Your task to perform on an android device: toggle wifi Image 0: 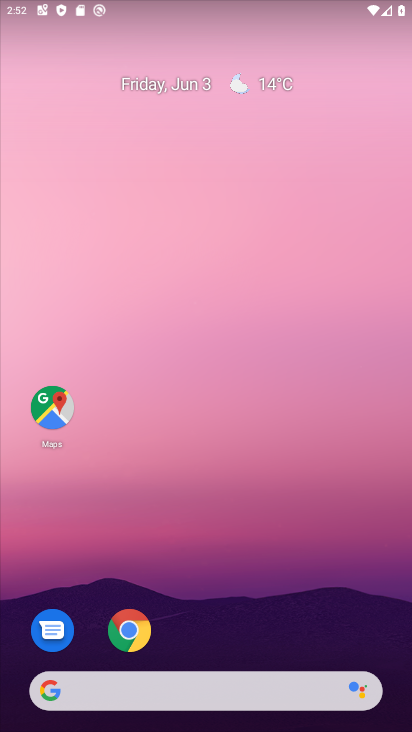
Step 0: drag from (221, 640) to (173, 270)
Your task to perform on an android device: toggle wifi Image 1: 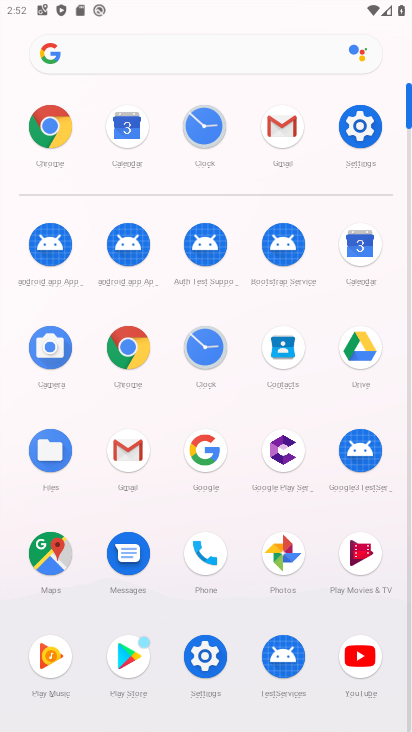
Step 1: click (361, 140)
Your task to perform on an android device: toggle wifi Image 2: 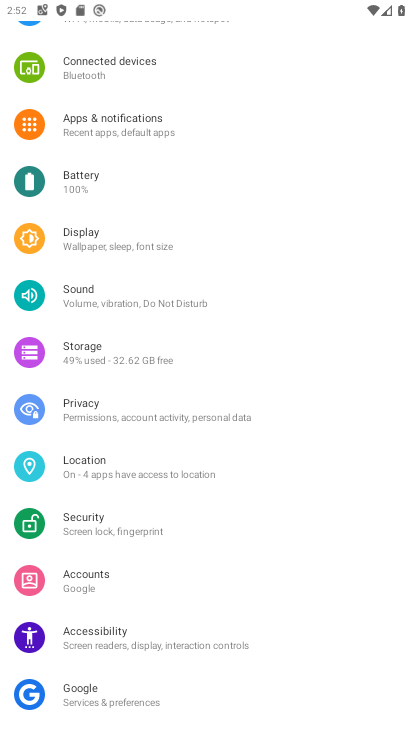
Step 2: drag from (229, 73) to (261, 561)
Your task to perform on an android device: toggle wifi Image 3: 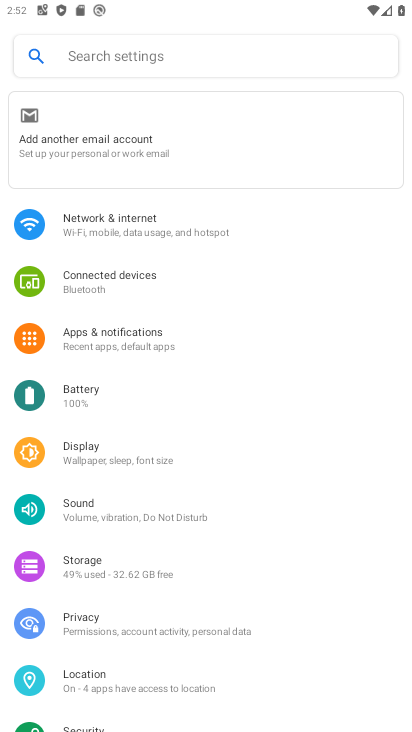
Step 3: click (198, 222)
Your task to perform on an android device: toggle wifi Image 4: 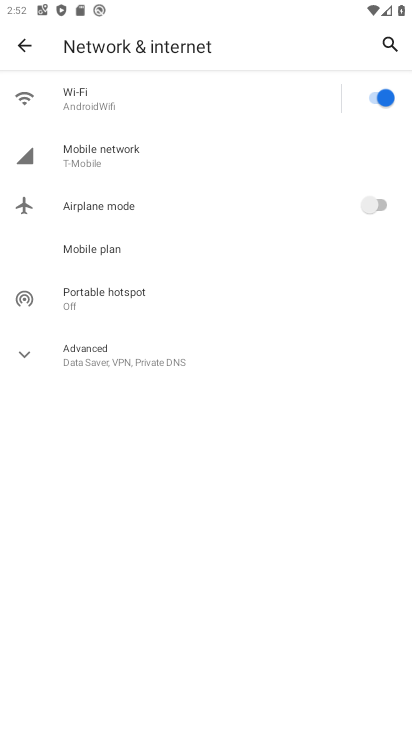
Step 4: click (380, 100)
Your task to perform on an android device: toggle wifi Image 5: 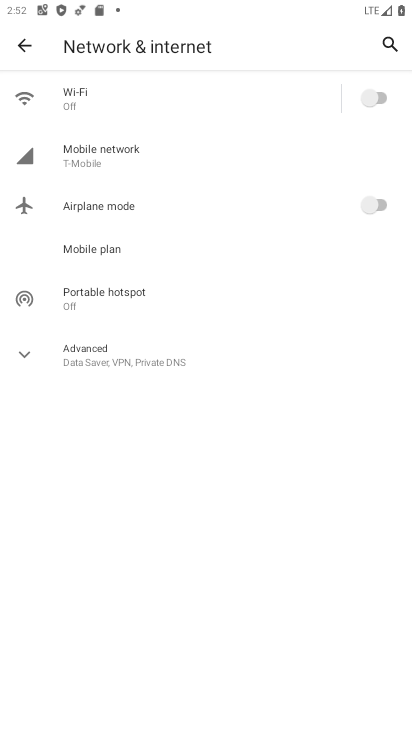
Step 5: task complete